Your task to perform on an android device: delete a single message in the gmail app Image 0: 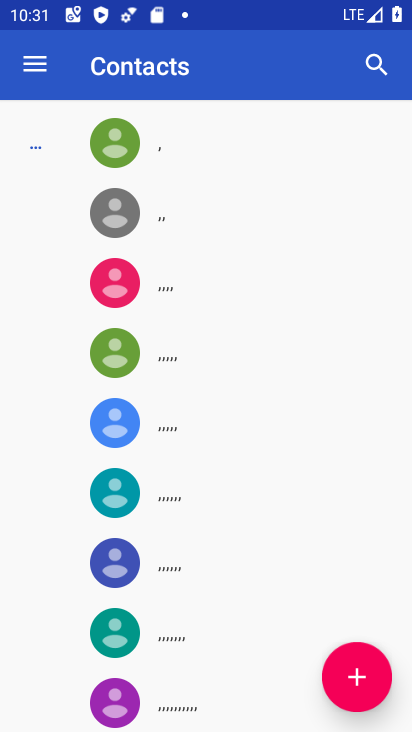
Step 0: press home button
Your task to perform on an android device: delete a single message in the gmail app Image 1: 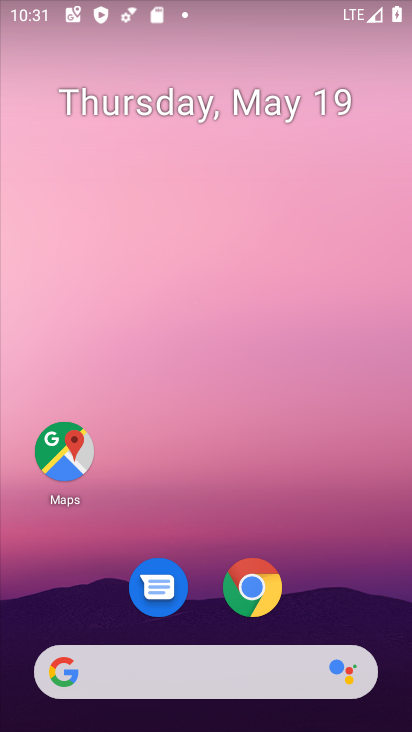
Step 1: drag from (197, 630) to (245, 41)
Your task to perform on an android device: delete a single message in the gmail app Image 2: 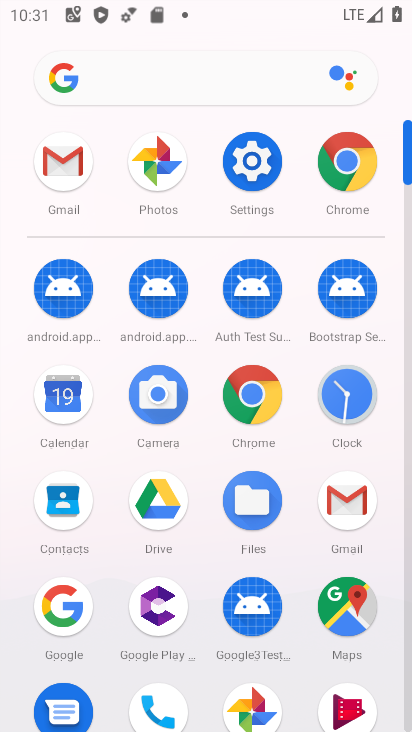
Step 2: click (353, 502)
Your task to perform on an android device: delete a single message in the gmail app Image 3: 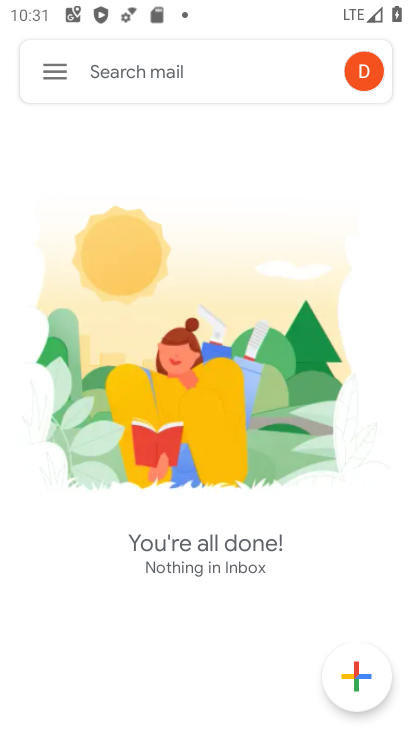
Step 3: task complete